Your task to perform on an android device: Go to Amazon Image 0: 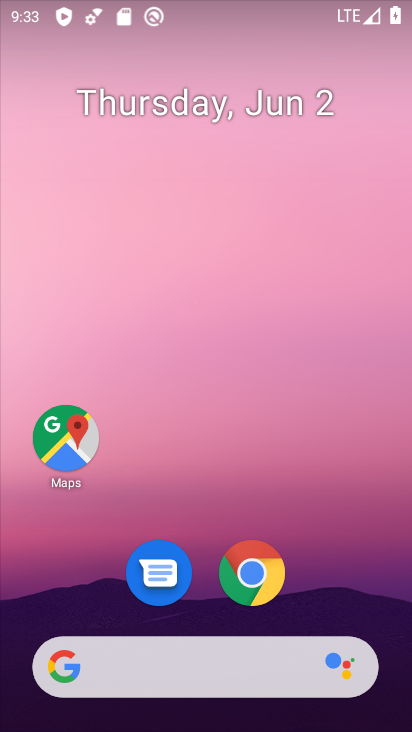
Step 0: drag from (332, 205) to (334, 105)
Your task to perform on an android device: Go to Amazon Image 1: 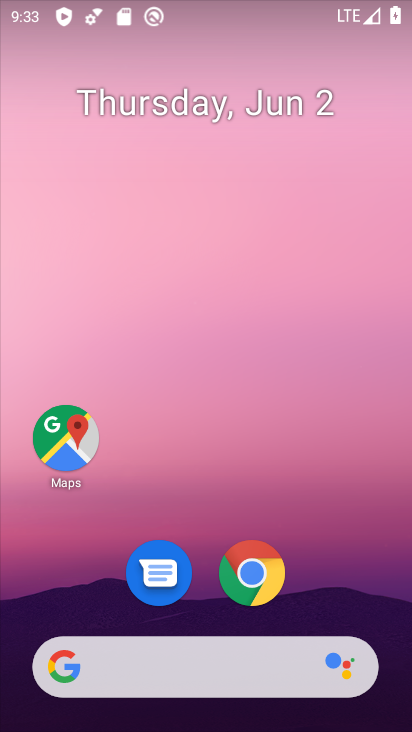
Step 1: drag from (326, 553) to (329, 111)
Your task to perform on an android device: Go to Amazon Image 2: 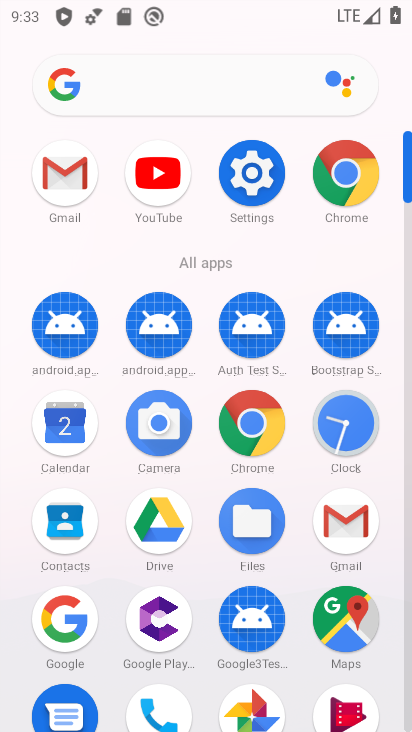
Step 2: click (249, 432)
Your task to perform on an android device: Go to Amazon Image 3: 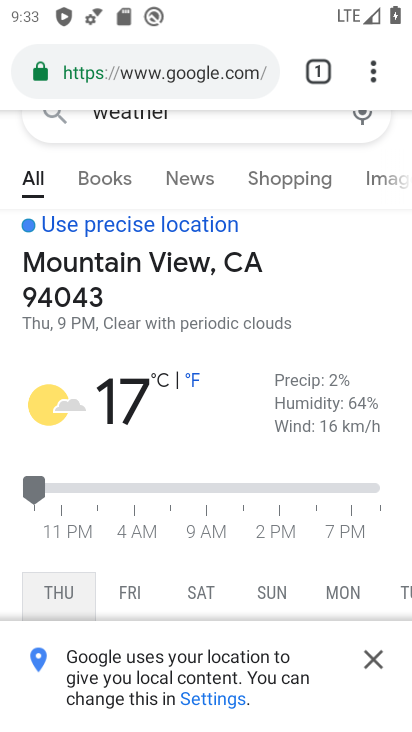
Step 3: click (208, 83)
Your task to perform on an android device: Go to Amazon Image 4: 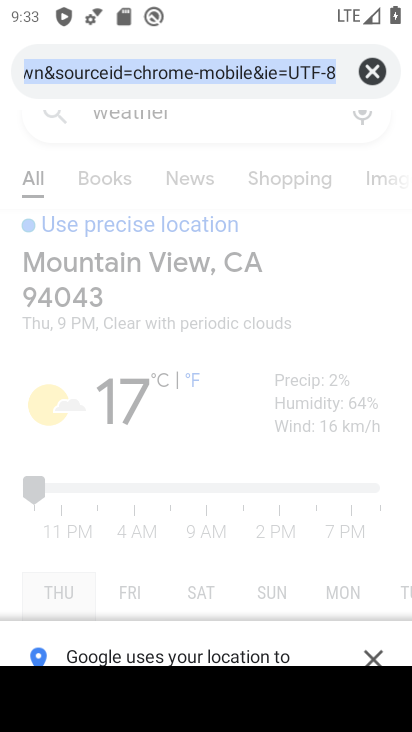
Step 4: type "amazon"
Your task to perform on an android device: Go to Amazon Image 5: 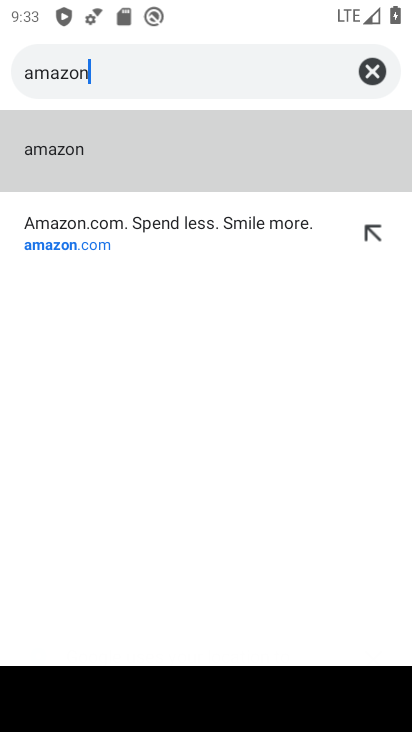
Step 5: click (75, 242)
Your task to perform on an android device: Go to Amazon Image 6: 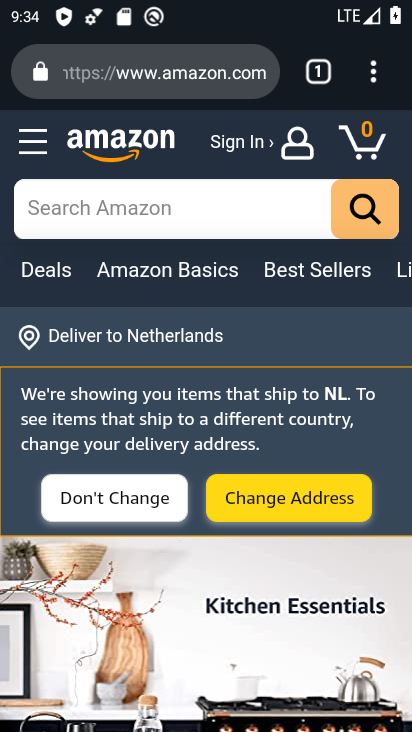
Step 6: task complete